Your task to perform on an android device: turn on notifications settings in the gmail app Image 0: 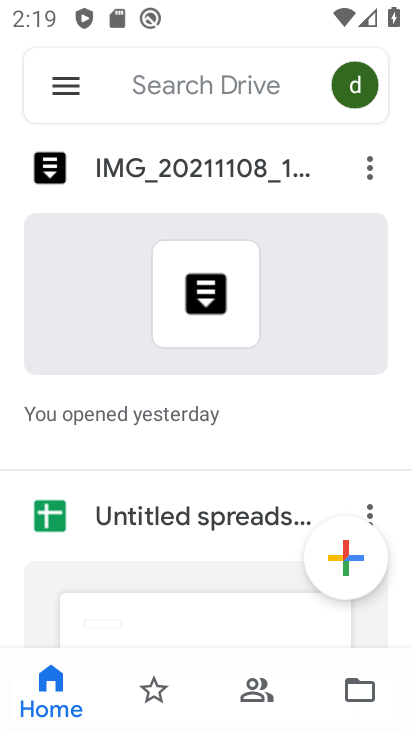
Step 0: press home button
Your task to perform on an android device: turn on notifications settings in the gmail app Image 1: 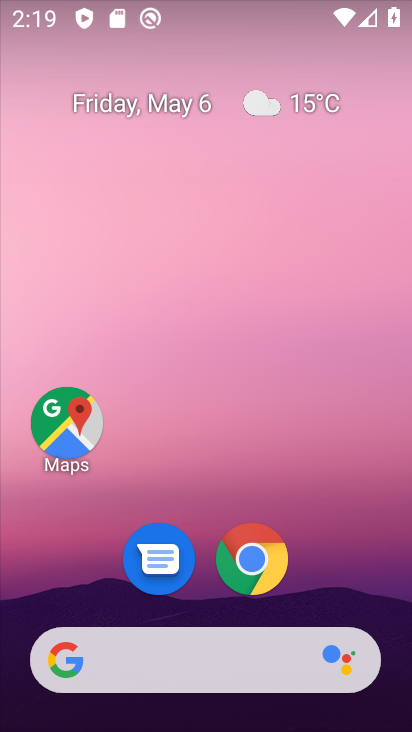
Step 1: drag from (325, 568) to (326, 99)
Your task to perform on an android device: turn on notifications settings in the gmail app Image 2: 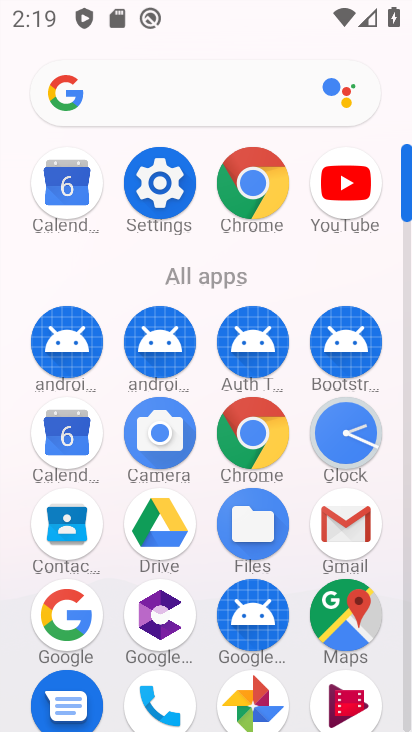
Step 2: click (326, 518)
Your task to perform on an android device: turn on notifications settings in the gmail app Image 3: 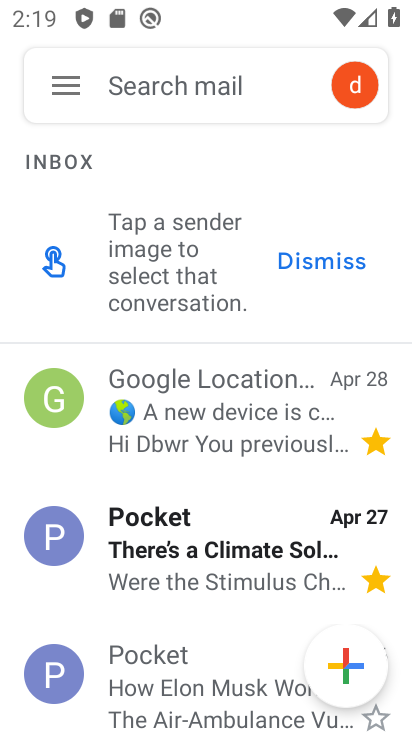
Step 3: click (61, 91)
Your task to perform on an android device: turn on notifications settings in the gmail app Image 4: 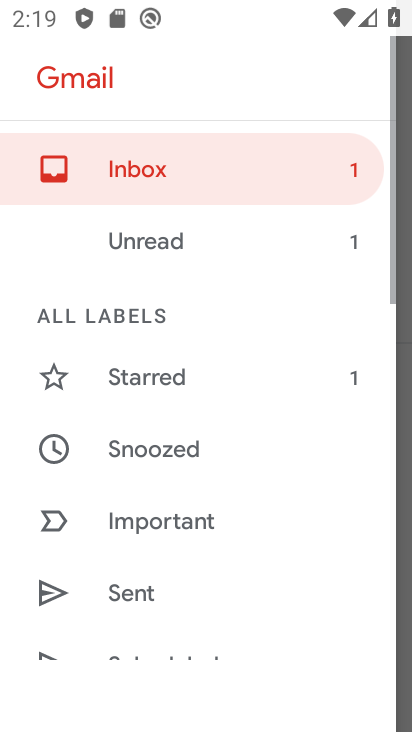
Step 4: drag from (103, 522) to (134, 326)
Your task to perform on an android device: turn on notifications settings in the gmail app Image 5: 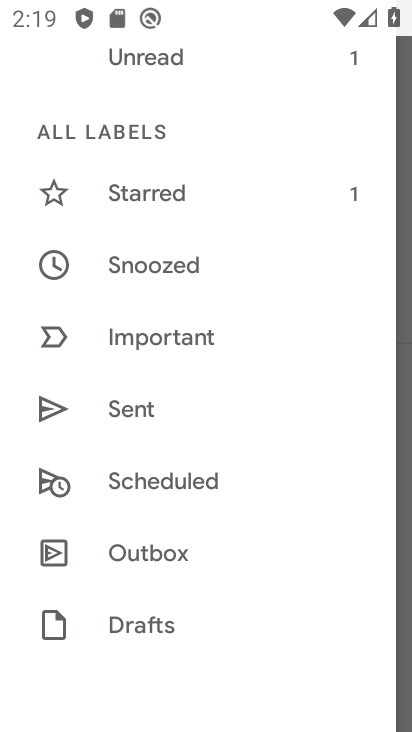
Step 5: drag from (185, 616) to (201, 417)
Your task to perform on an android device: turn on notifications settings in the gmail app Image 6: 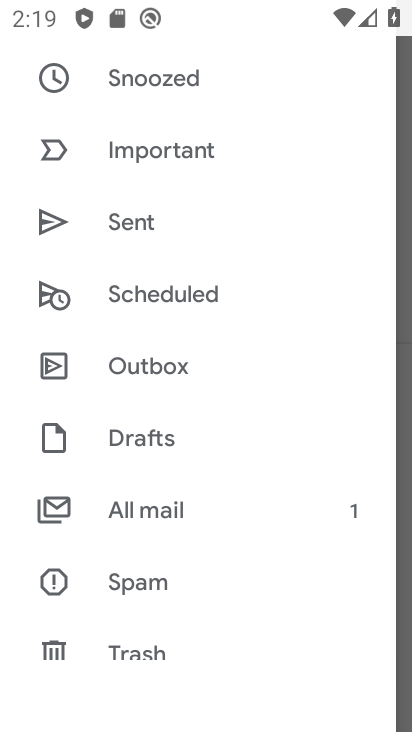
Step 6: drag from (197, 672) to (214, 385)
Your task to perform on an android device: turn on notifications settings in the gmail app Image 7: 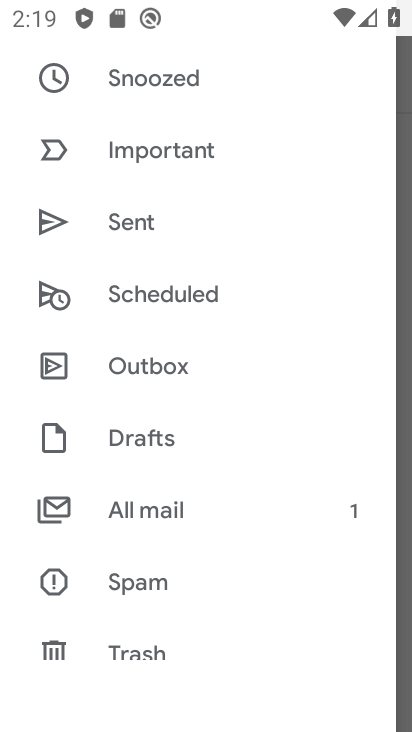
Step 7: drag from (184, 576) to (183, 365)
Your task to perform on an android device: turn on notifications settings in the gmail app Image 8: 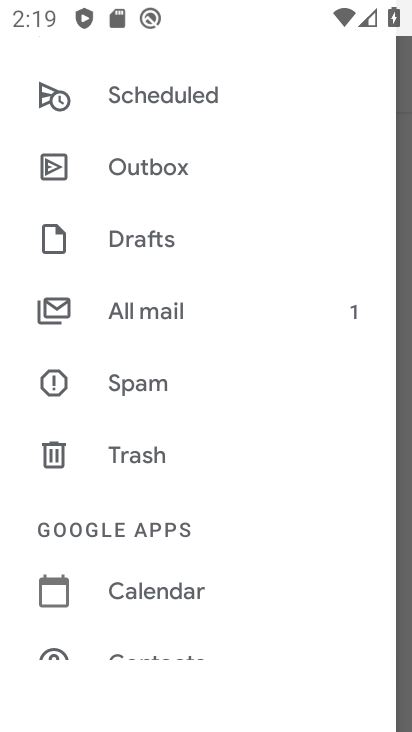
Step 8: drag from (176, 584) to (192, 389)
Your task to perform on an android device: turn on notifications settings in the gmail app Image 9: 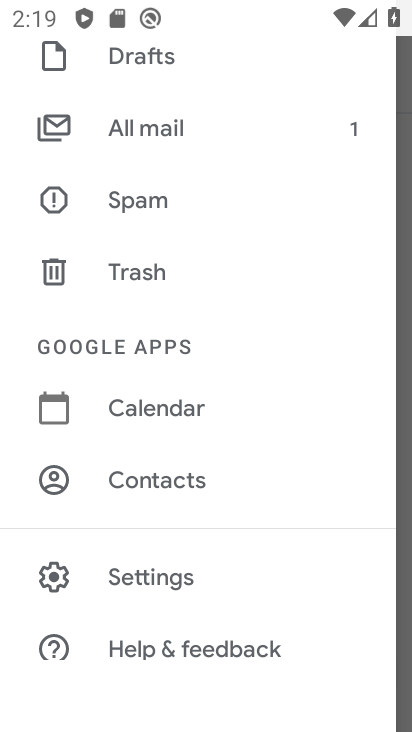
Step 9: click (181, 591)
Your task to perform on an android device: turn on notifications settings in the gmail app Image 10: 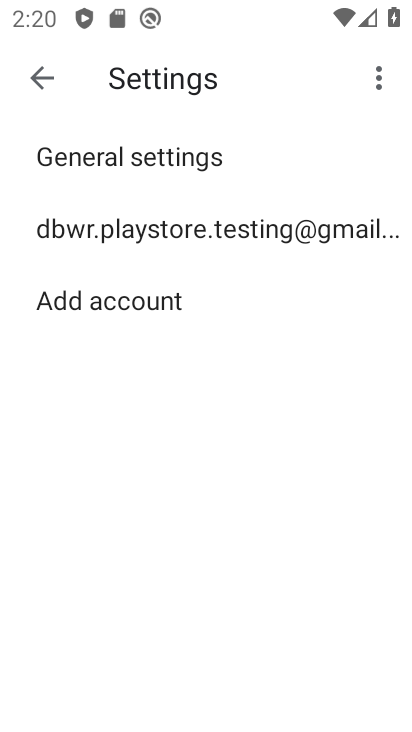
Step 10: click (149, 156)
Your task to perform on an android device: turn on notifications settings in the gmail app Image 11: 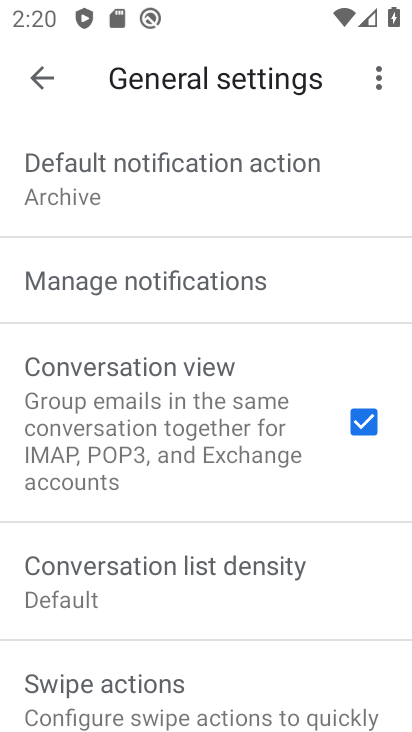
Step 11: click (146, 308)
Your task to perform on an android device: turn on notifications settings in the gmail app Image 12: 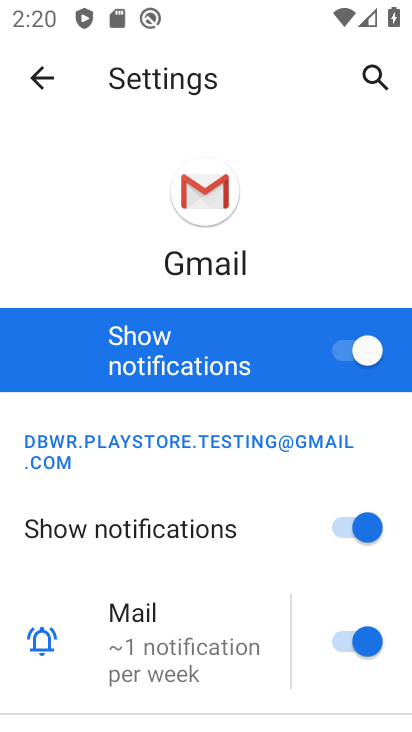
Step 12: task complete